Your task to perform on an android device: Search for the best 4k TVs Image 0: 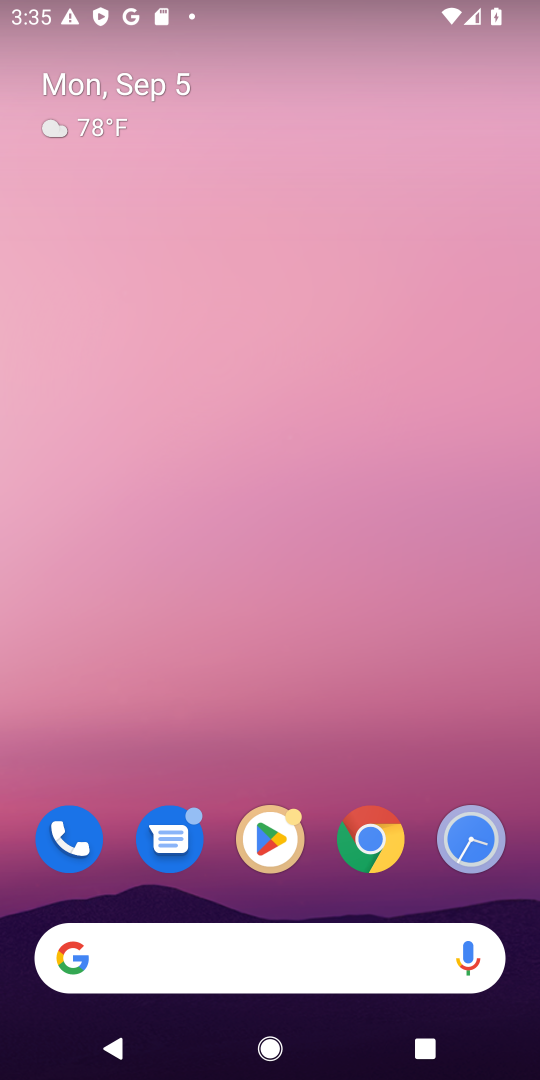
Step 0: click (219, 954)
Your task to perform on an android device: Search for the best 4k TVs Image 1: 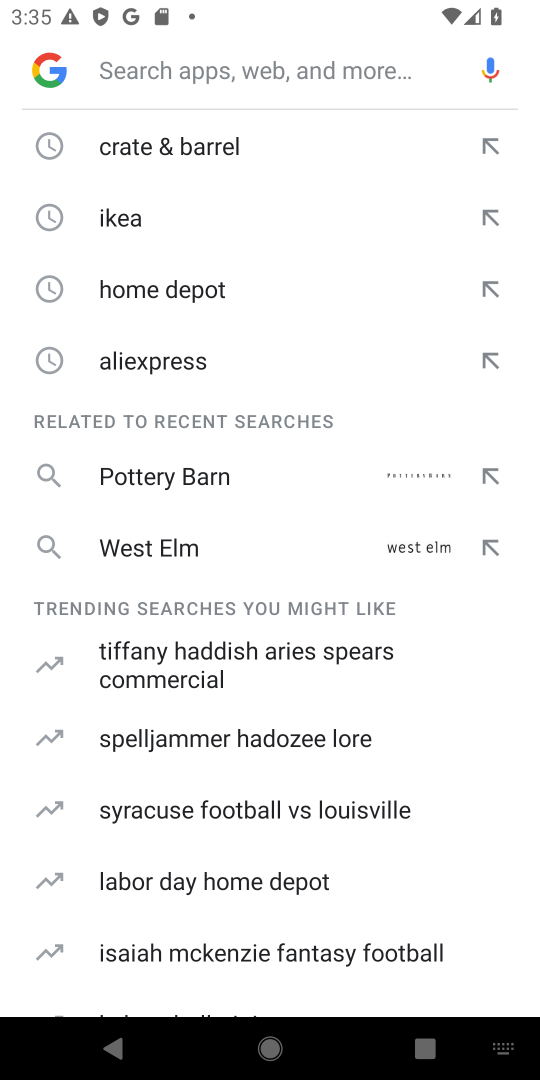
Step 1: type "best 4 k tv"
Your task to perform on an android device: Search for the best 4k TVs Image 2: 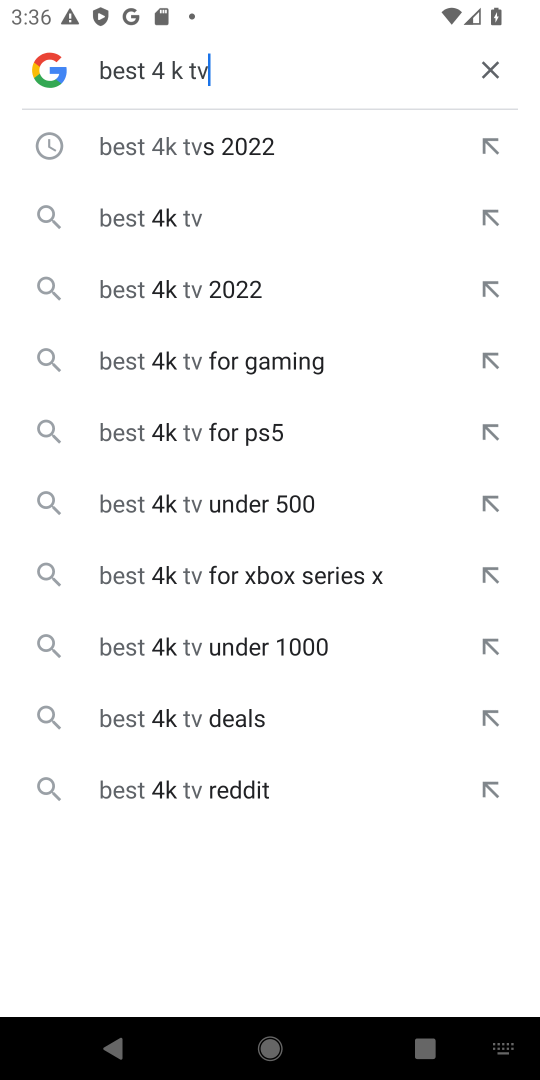
Step 2: press enter
Your task to perform on an android device: Search for the best 4k TVs Image 3: 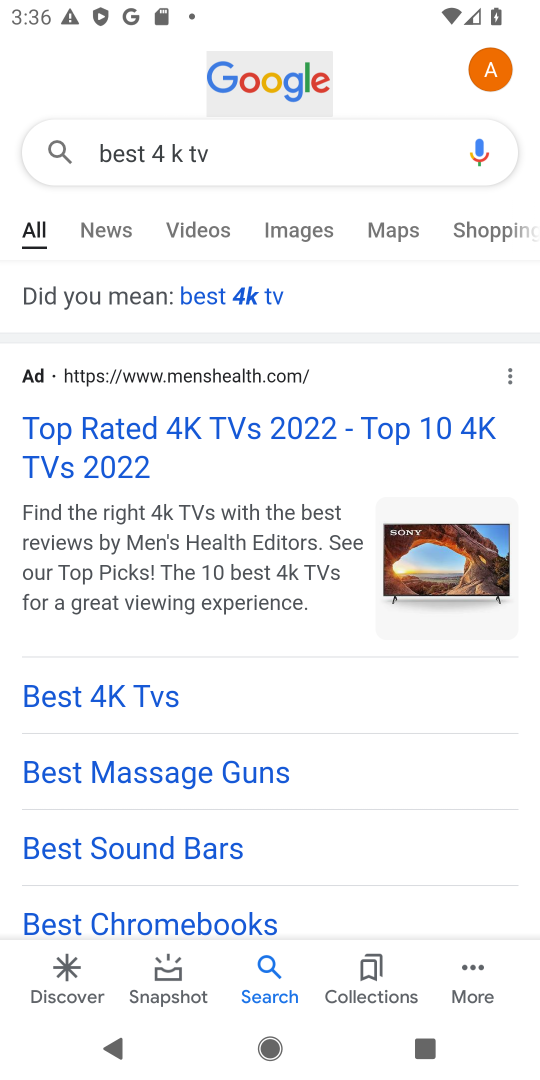
Step 3: drag from (406, 330) to (406, 146)
Your task to perform on an android device: Search for the best 4k TVs Image 4: 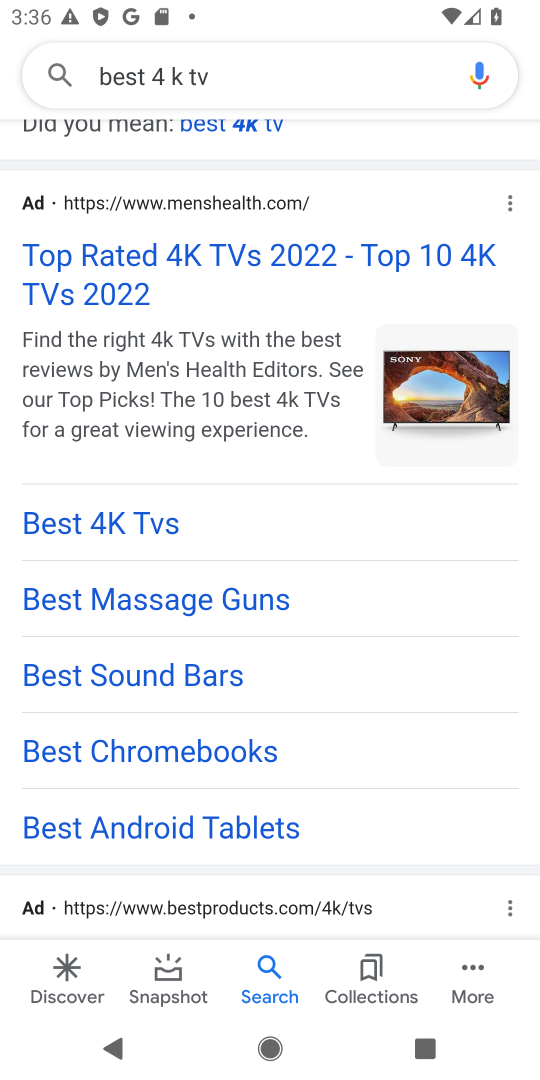
Step 4: drag from (345, 398) to (357, 72)
Your task to perform on an android device: Search for the best 4k TVs Image 5: 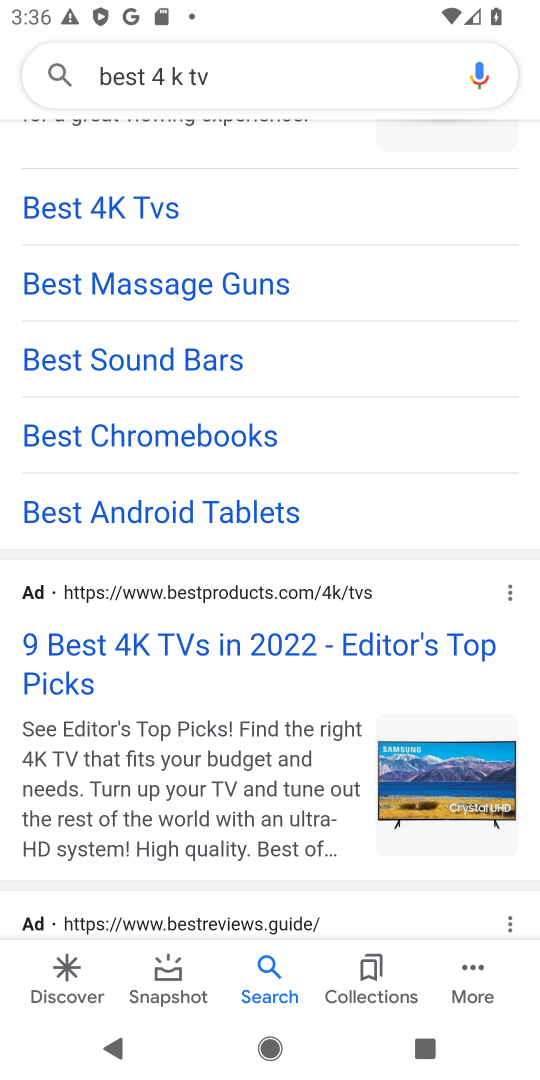
Step 5: drag from (403, 561) to (405, 210)
Your task to perform on an android device: Search for the best 4k TVs Image 6: 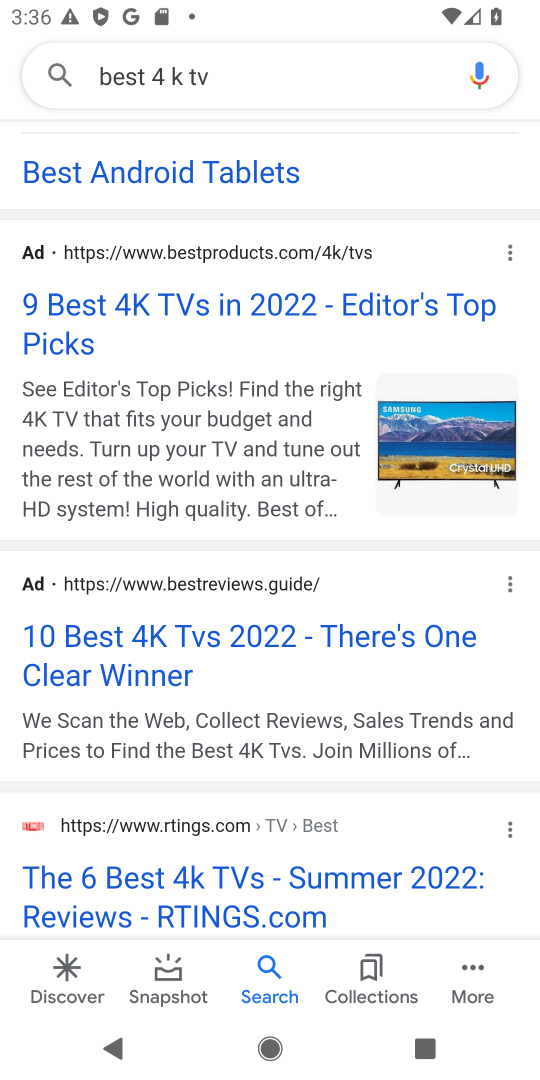
Step 6: click (138, 805)
Your task to perform on an android device: Search for the best 4k TVs Image 7: 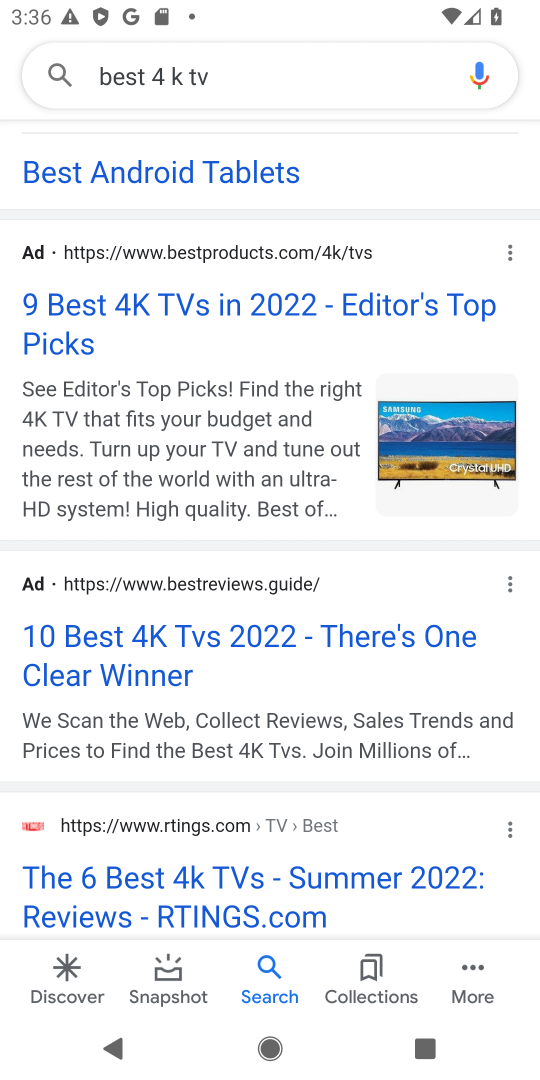
Step 7: click (145, 819)
Your task to perform on an android device: Search for the best 4k TVs Image 8: 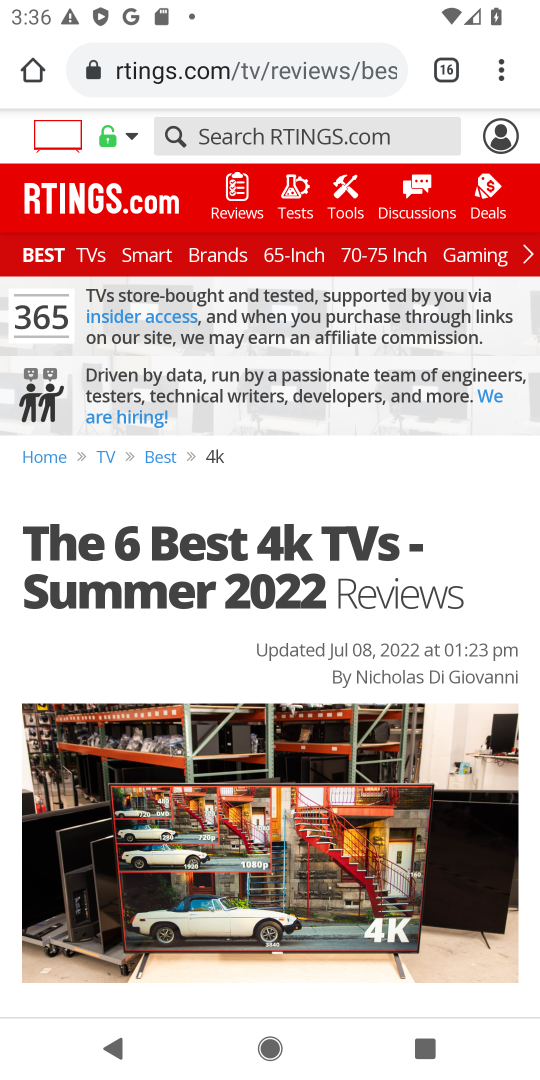
Step 8: drag from (450, 541) to (491, 313)
Your task to perform on an android device: Search for the best 4k TVs Image 9: 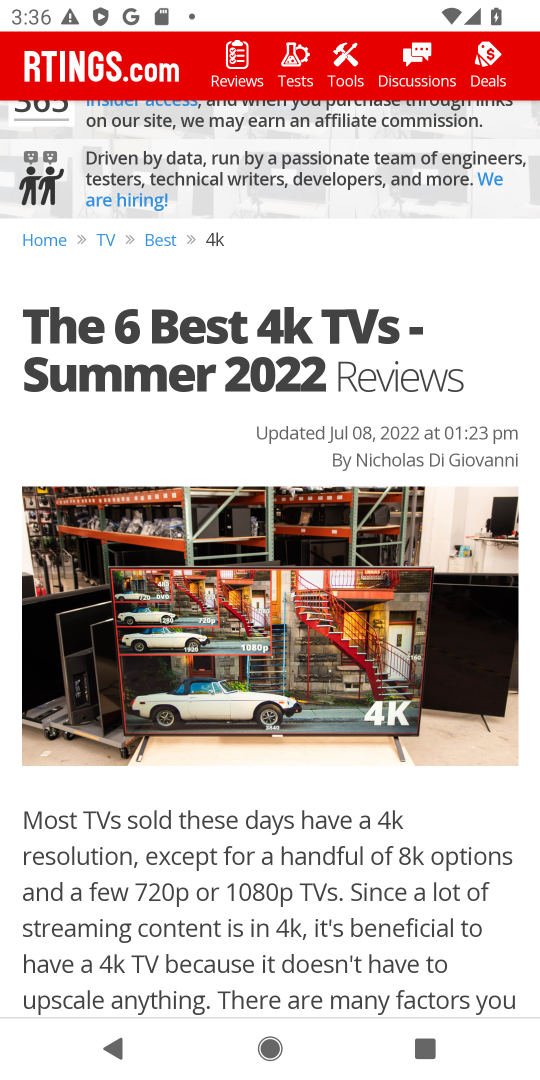
Step 9: drag from (71, 236) to (99, 143)
Your task to perform on an android device: Search for the best 4k TVs Image 10: 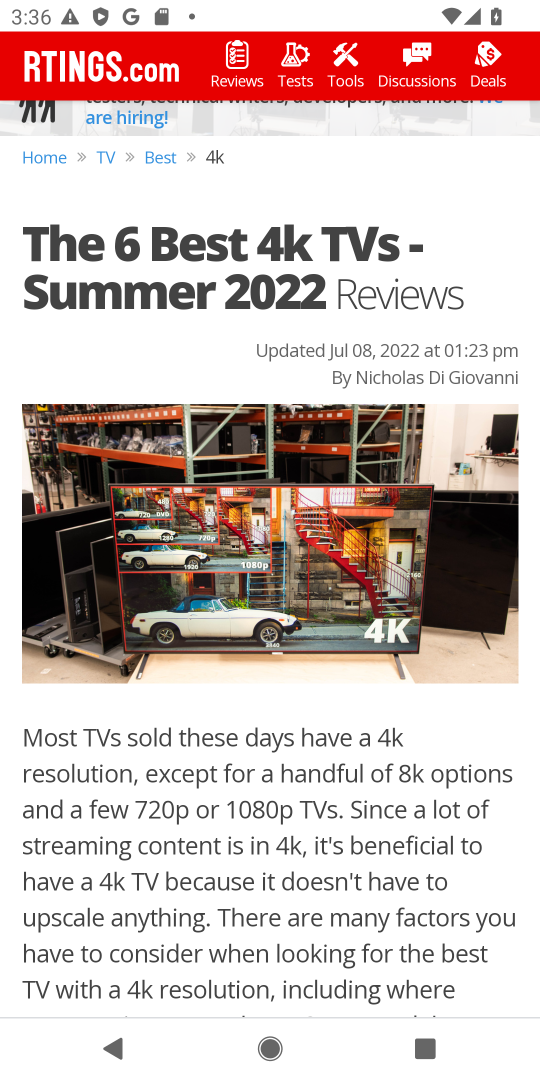
Step 10: click (21, 706)
Your task to perform on an android device: Search for the best 4k TVs Image 11: 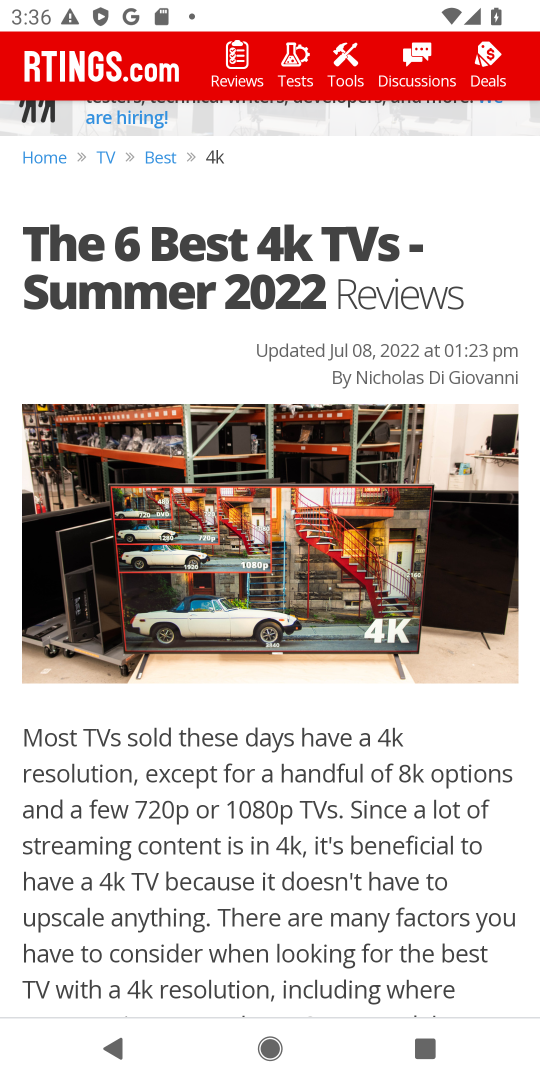
Step 11: drag from (28, 735) to (157, 124)
Your task to perform on an android device: Search for the best 4k TVs Image 12: 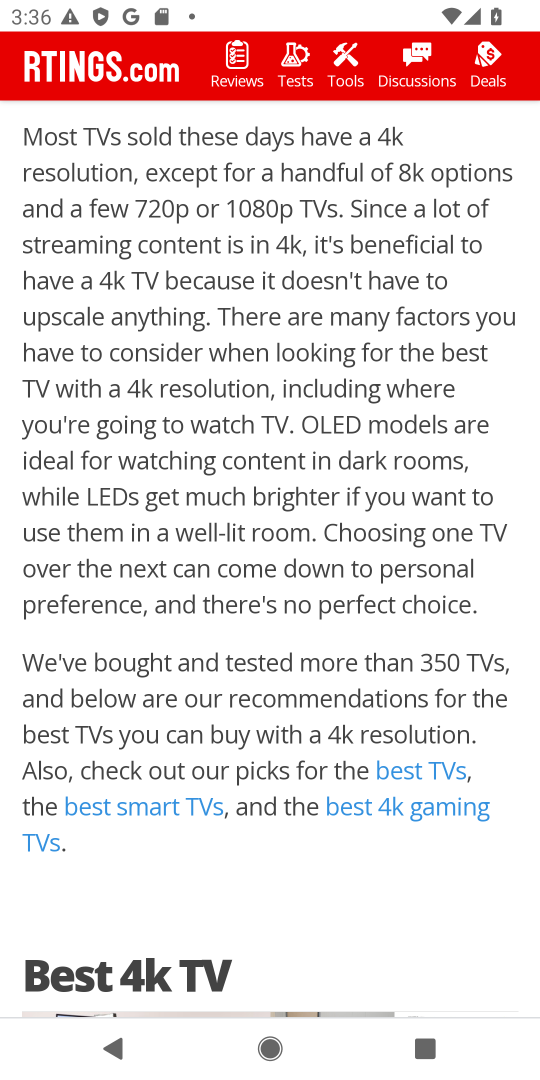
Step 12: drag from (251, 627) to (371, 212)
Your task to perform on an android device: Search for the best 4k TVs Image 13: 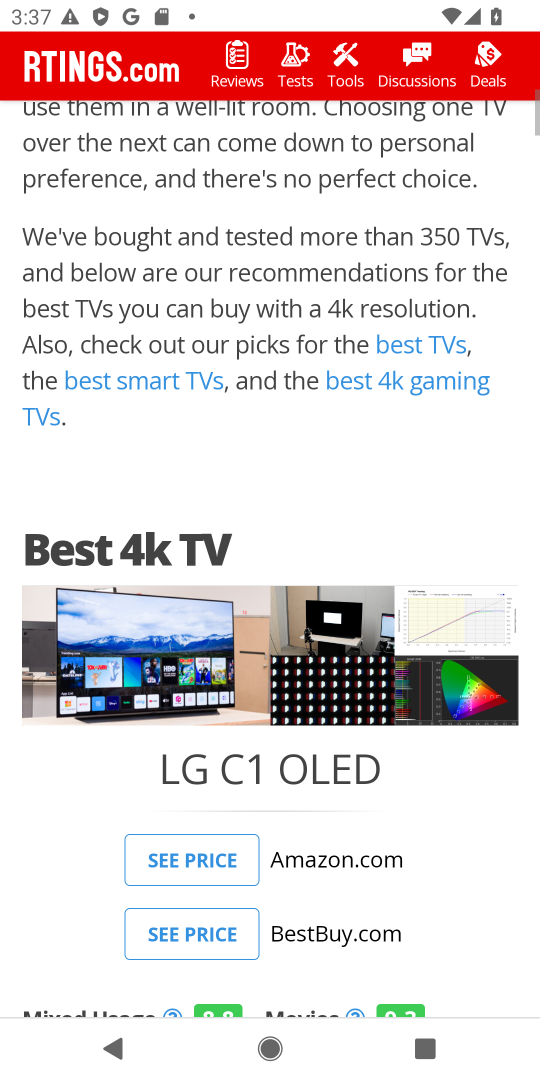
Step 13: click (392, 598)
Your task to perform on an android device: Search for the best 4k TVs Image 14: 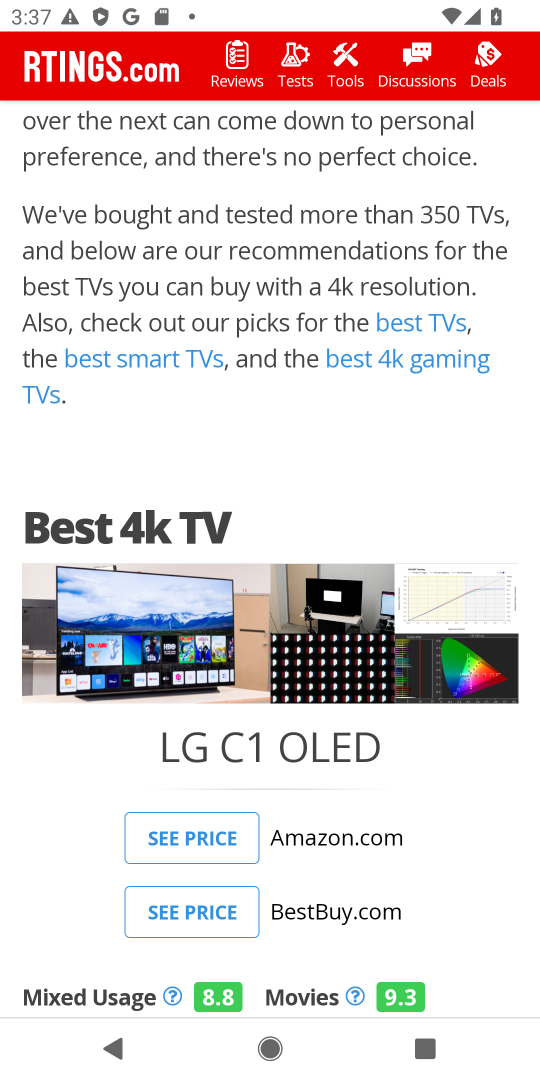
Step 14: drag from (98, 697) to (267, 290)
Your task to perform on an android device: Search for the best 4k TVs Image 15: 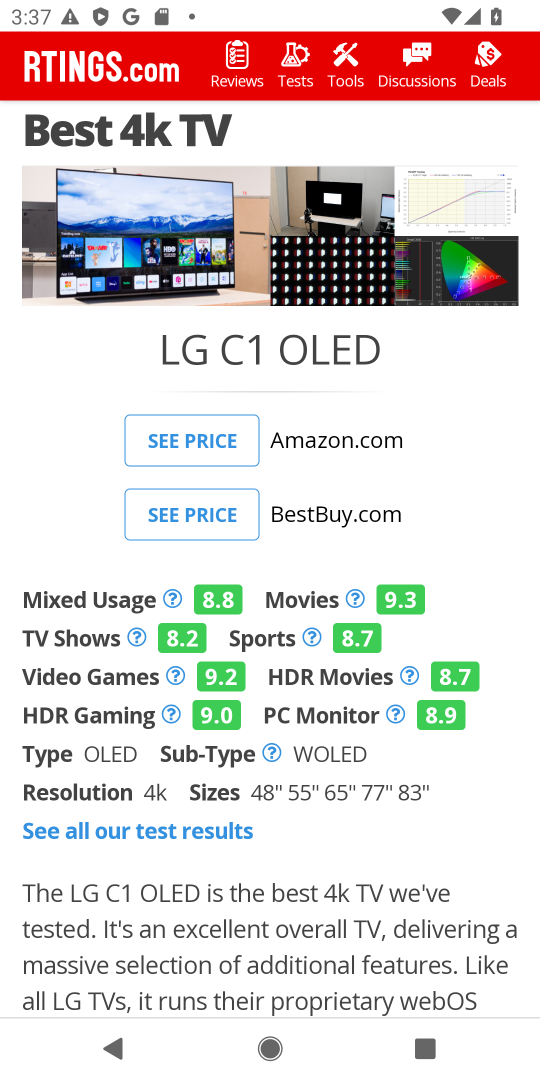
Step 15: drag from (62, 438) to (102, 323)
Your task to perform on an android device: Search for the best 4k TVs Image 16: 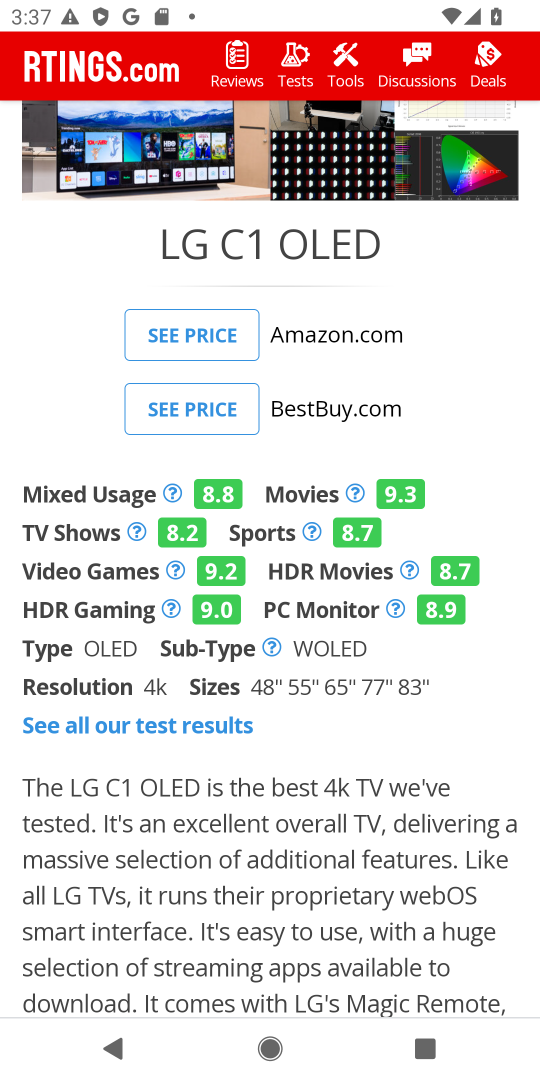
Step 16: drag from (62, 388) to (72, 258)
Your task to perform on an android device: Search for the best 4k TVs Image 17: 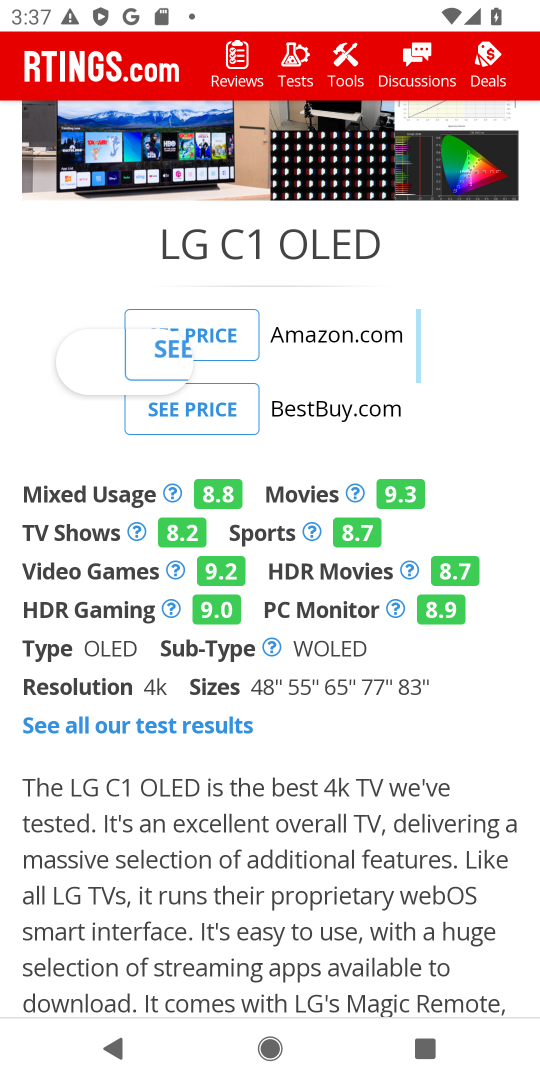
Step 17: click (72, 262)
Your task to perform on an android device: Search for the best 4k TVs Image 18: 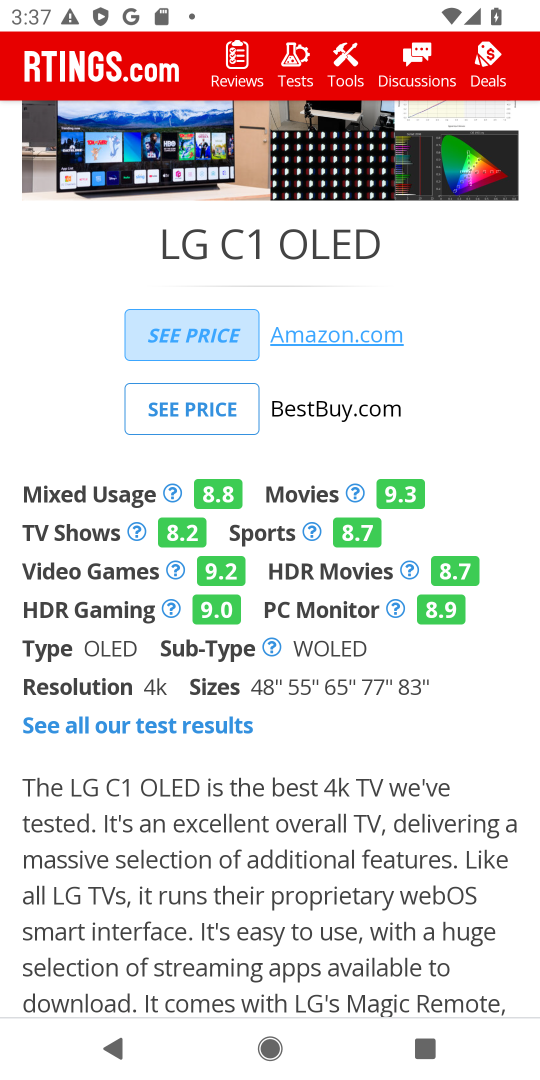
Step 18: task complete